Your task to perform on an android device: star an email in the gmail app Image 0: 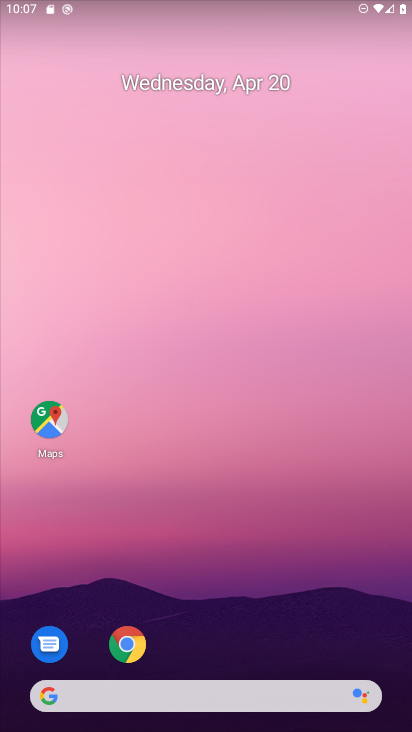
Step 0: drag from (355, 635) to (221, 39)
Your task to perform on an android device: star an email in the gmail app Image 1: 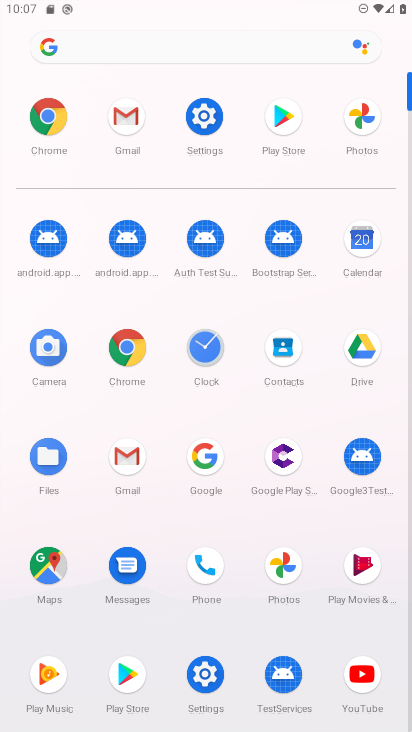
Step 1: click (129, 454)
Your task to perform on an android device: star an email in the gmail app Image 2: 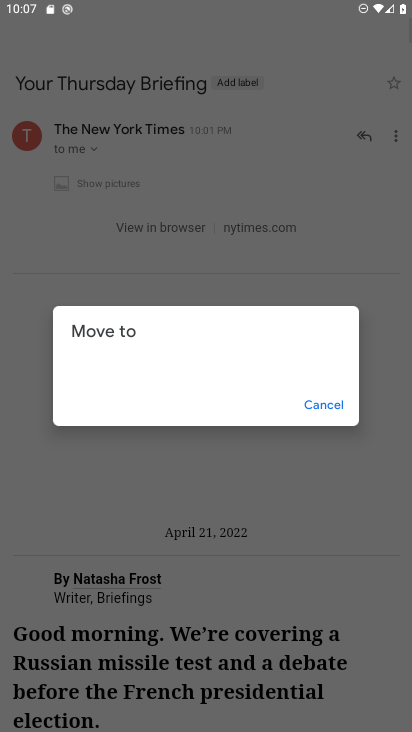
Step 2: click (307, 400)
Your task to perform on an android device: star an email in the gmail app Image 3: 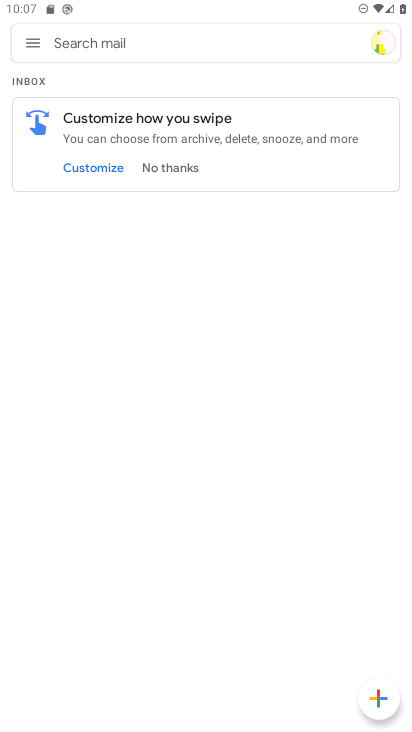
Step 3: task complete